Your task to perform on an android device: Show me popular games on the Play Store Image 0: 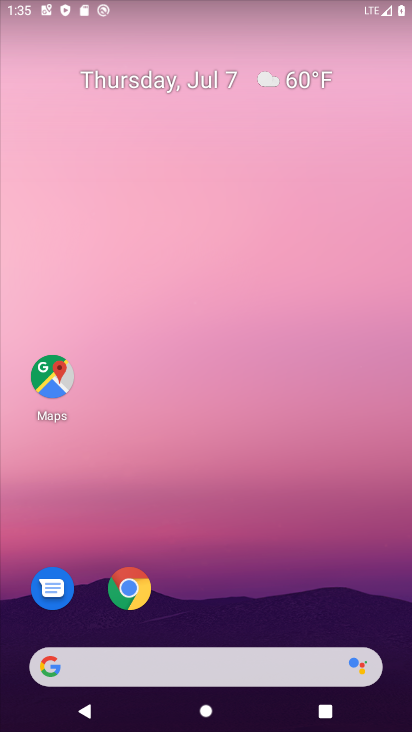
Step 0: drag from (214, 617) to (236, 255)
Your task to perform on an android device: Show me popular games on the Play Store Image 1: 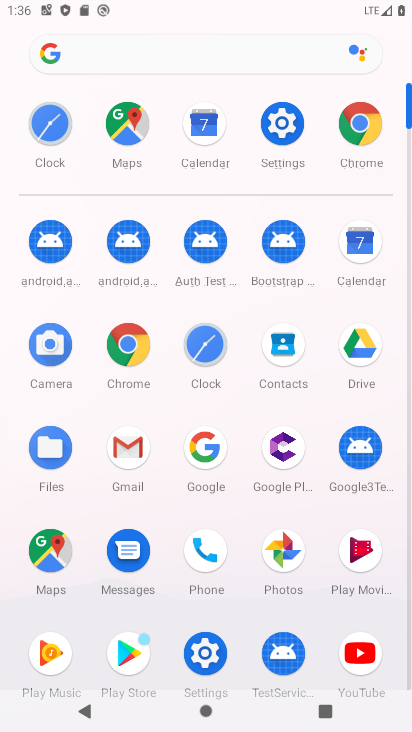
Step 1: click (137, 642)
Your task to perform on an android device: Show me popular games on the Play Store Image 2: 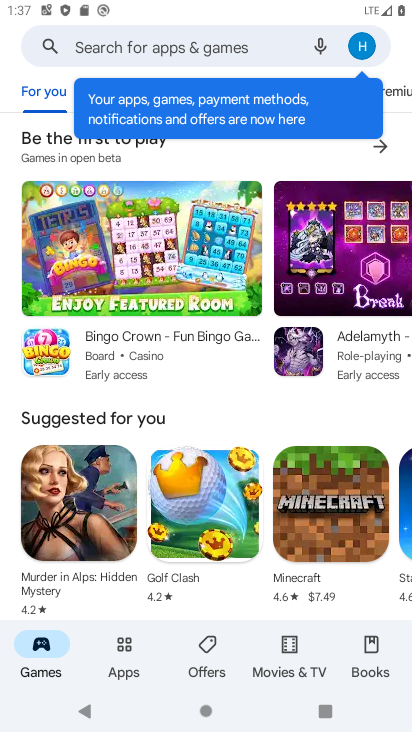
Step 2: task complete